Your task to perform on an android device: Search for Mexican restaurants on Maps Image 0: 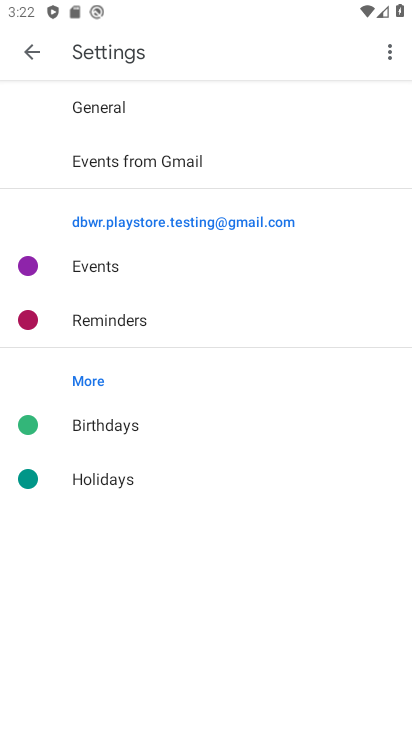
Step 0: press home button
Your task to perform on an android device: Search for Mexican restaurants on Maps Image 1: 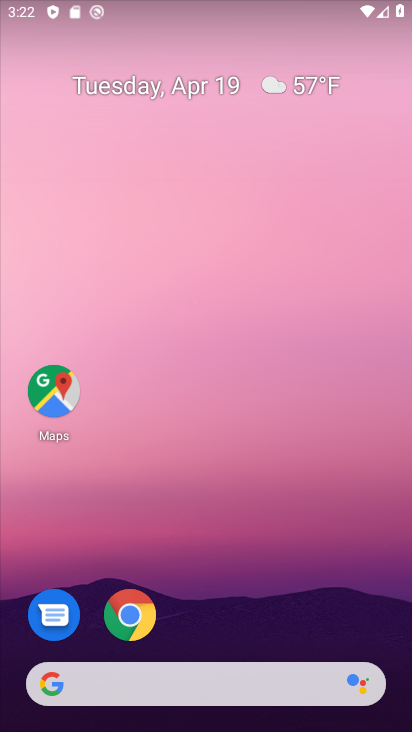
Step 1: click (66, 380)
Your task to perform on an android device: Search for Mexican restaurants on Maps Image 2: 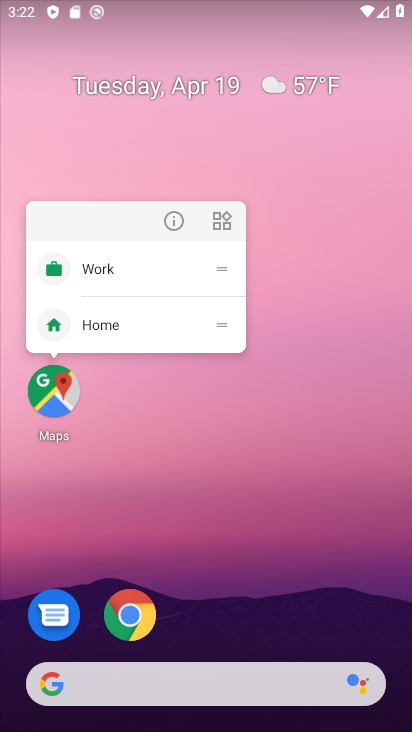
Step 2: click (65, 384)
Your task to perform on an android device: Search for Mexican restaurants on Maps Image 3: 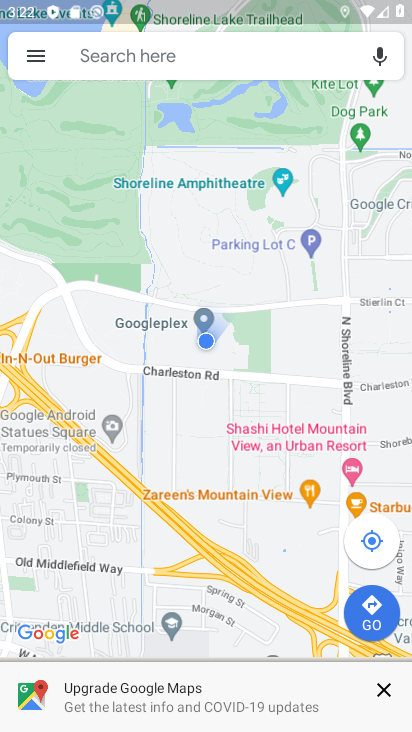
Step 3: click (170, 56)
Your task to perform on an android device: Search for Mexican restaurants on Maps Image 4: 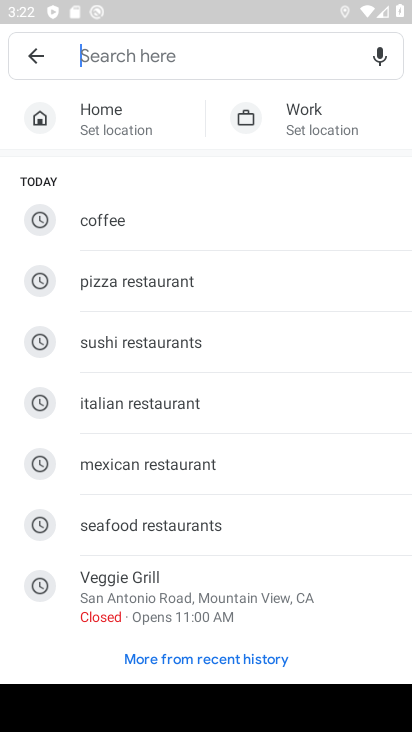
Step 4: type "Mexican restaurants"
Your task to perform on an android device: Search for Mexican restaurants on Maps Image 5: 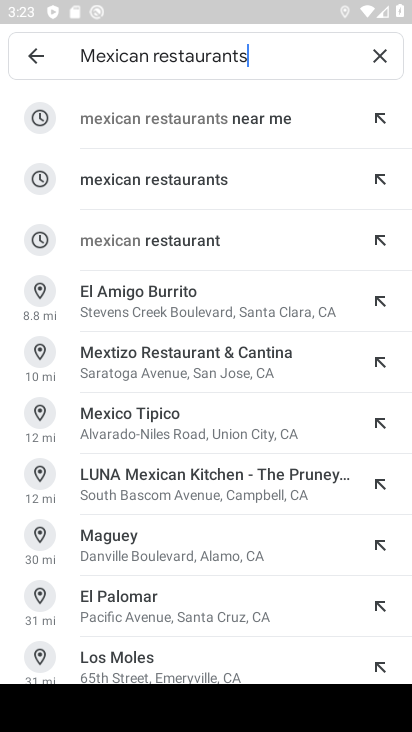
Step 5: click (224, 179)
Your task to perform on an android device: Search for Mexican restaurants on Maps Image 6: 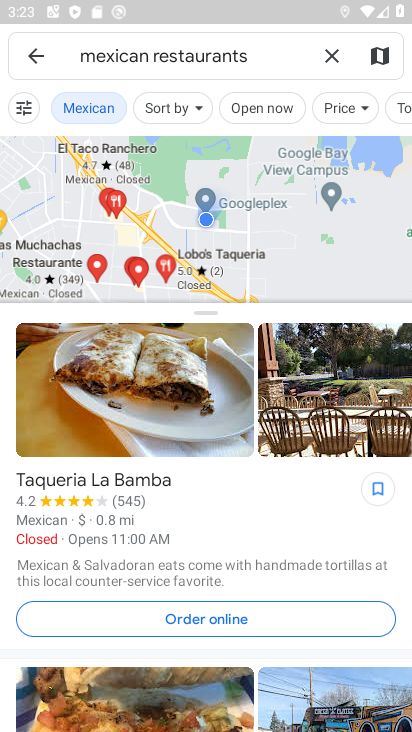
Step 6: task complete